Your task to perform on an android device: open a bookmark in the chrome app Image 0: 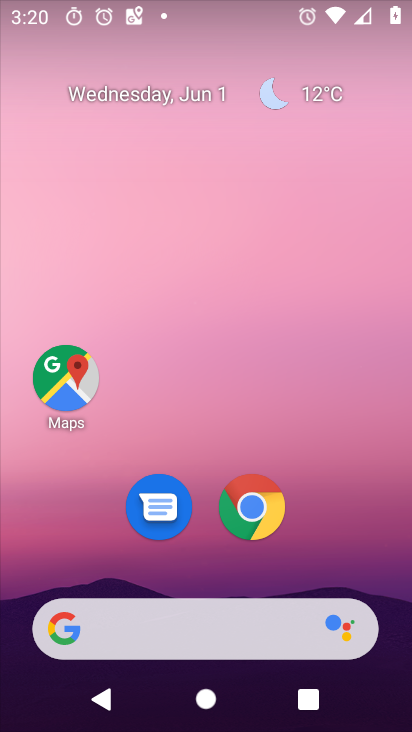
Step 0: click (253, 513)
Your task to perform on an android device: open a bookmark in the chrome app Image 1: 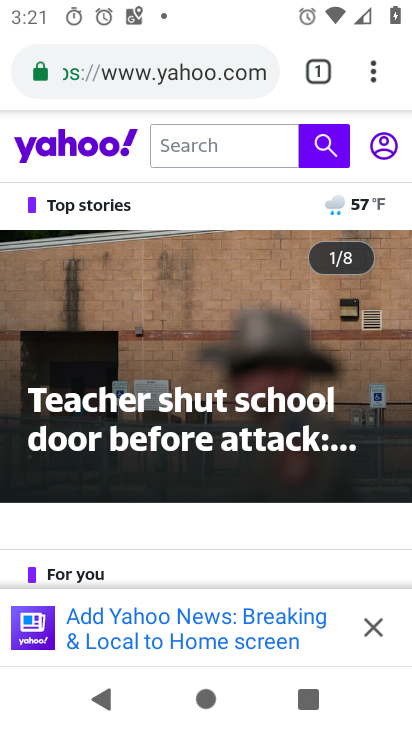
Step 1: click (373, 67)
Your task to perform on an android device: open a bookmark in the chrome app Image 2: 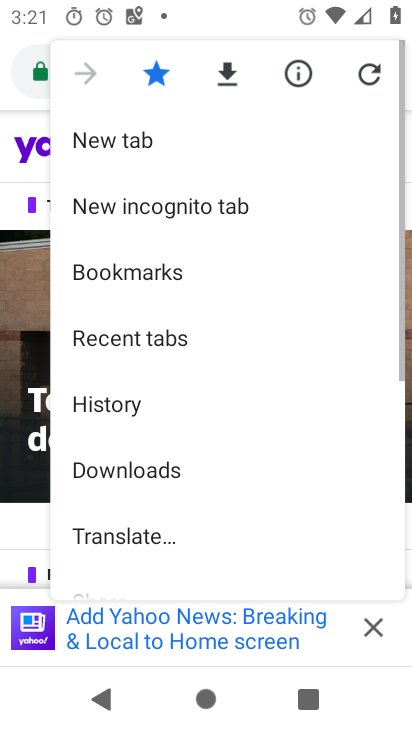
Step 2: click (166, 276)
Your task to perform on an android device: open a bookmark in the chrome app Image 3: 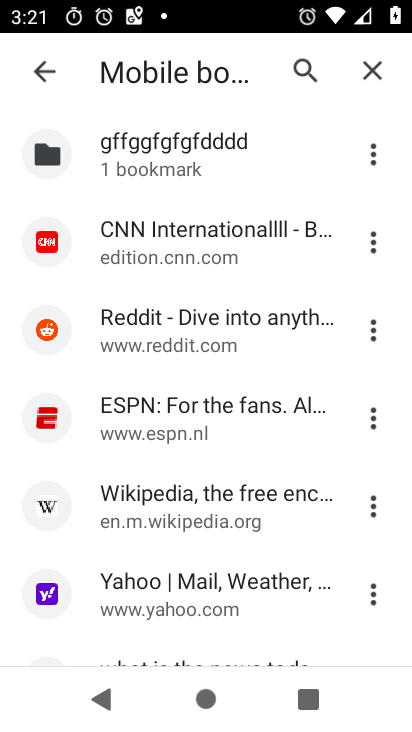
Step 3: drag from (184, 561) to (179, 334)
Your task to perform on an android device: open a bookmark in the chrome app Image 4: 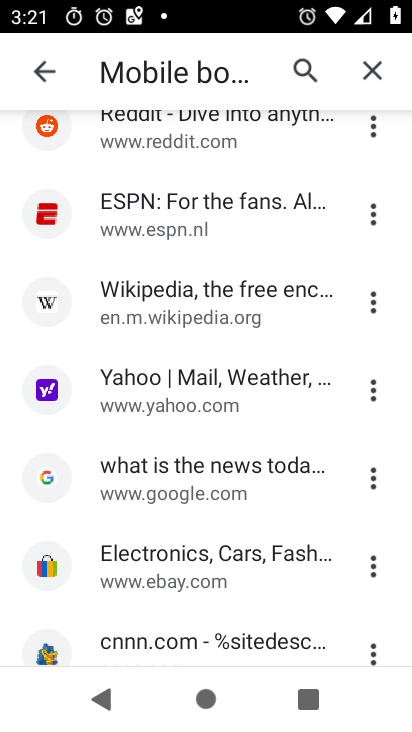
Step 4: click (173, 294)
Your task to perform on an android device: open a bookmark in the chrome app Image 5: 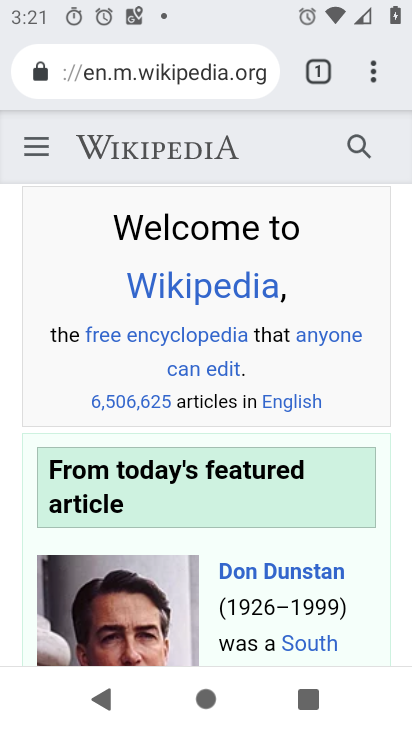
Step 5: task complete